Your task to perform on an android device: toggle show notifications on the lock screen Image 0: 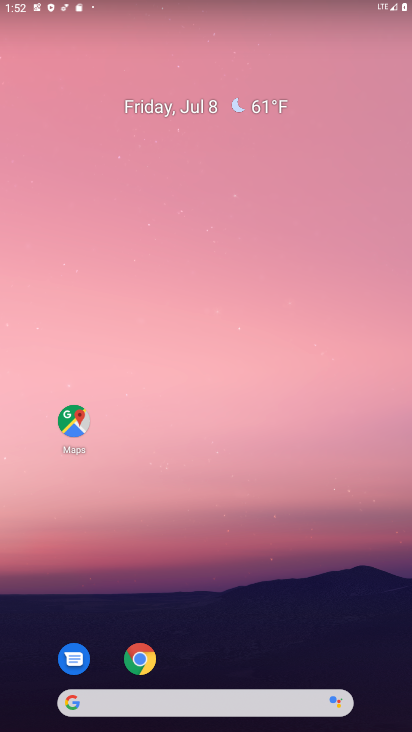
Step 0: drag from (236, 684) to (192, 229)
Your task to perform on an android device: toggle show notifications on the lock screen Image 1: 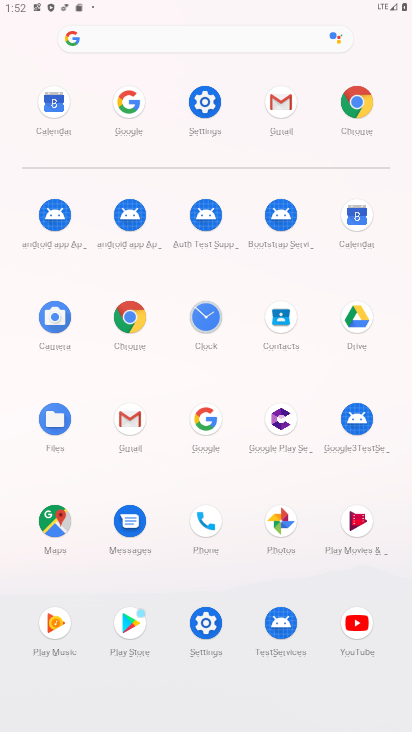
Step 1: click (212, 121)
Your task to perform on an android device: toggle show notifications on the lock screen Image 2: 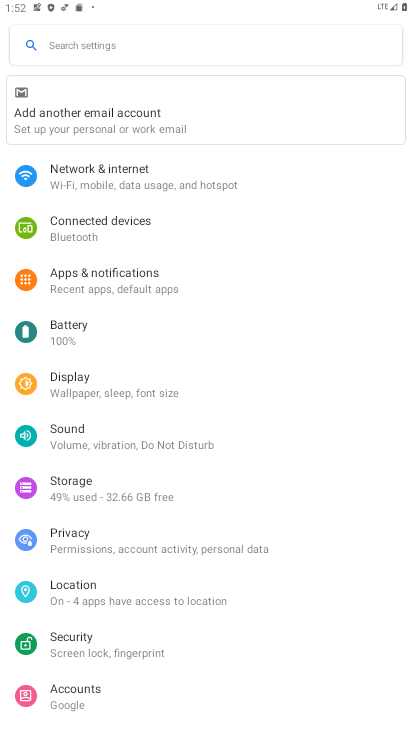
Step 2: click (133, 289)
Your task to perform on an android device: toggle show notifications on the lock screen Image 3: 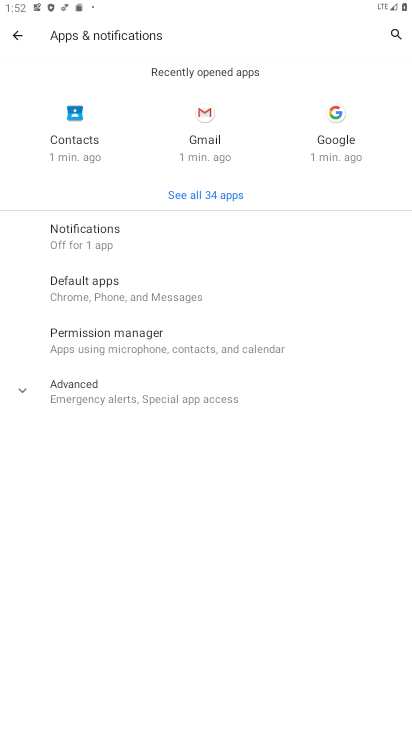
Step 3: click (88, 237)
Your task to perform on an android device: toggle show notifications on the lock screen Image 4: 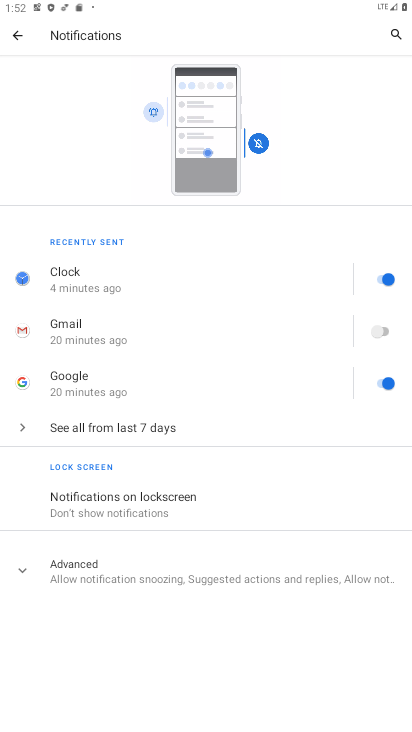
Step 4: click (141, 493)
Your task to perform on an android device: toggle show notifications on the lock screen Image 5: 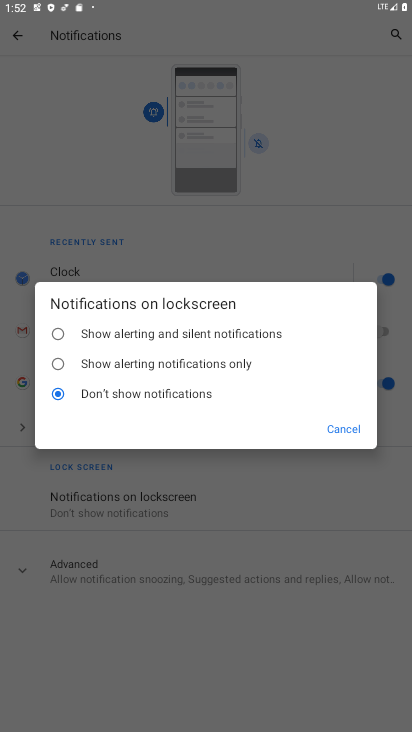
Step 5: click (89, 375)
Your task to perform on an android device: toggle show notifications on the lock screen Image 6: 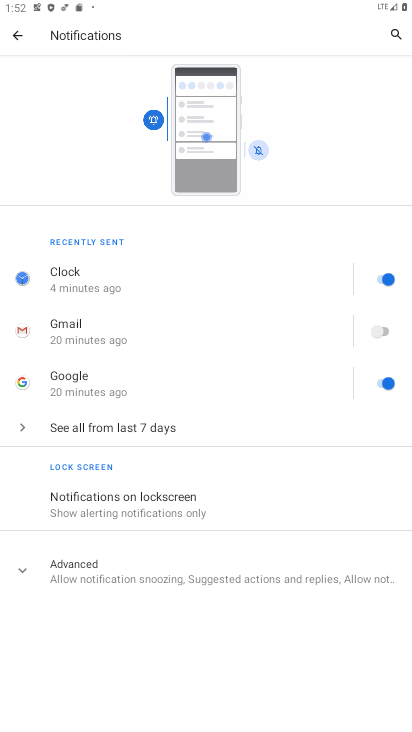
Step 6: task complete